Your task to perform on an android device: What's on my calendar today? Image 0: 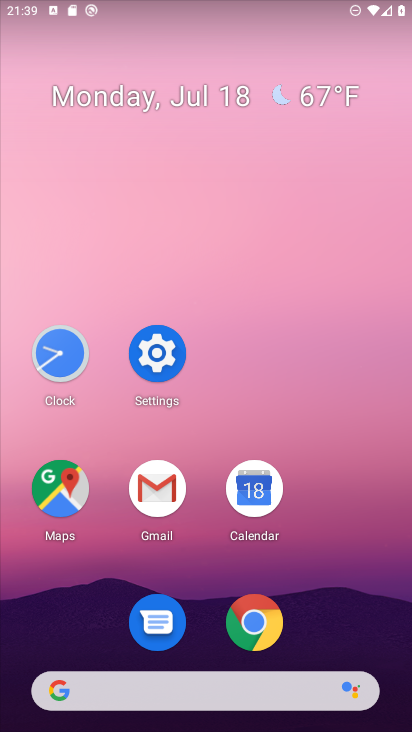
Step 0: click (242, 497)
Your task to perform on an android device: What's on my calendar today? Image 1: 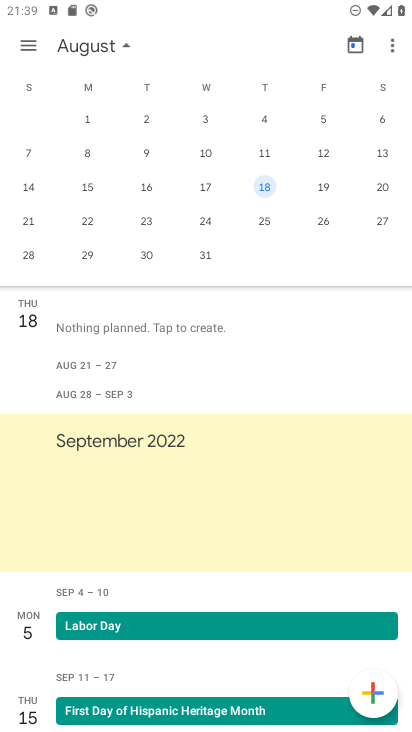
Step 1: drag from (58, 132) to (367, 143)
Your task to perform on an android device: What's on my calendar today? Image 2: 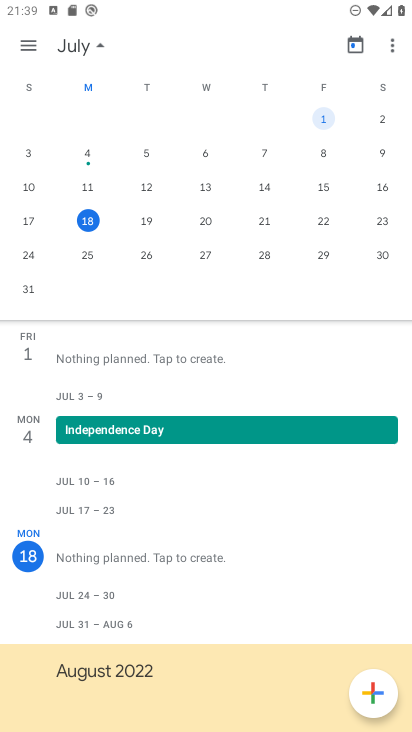
Step 2: click (87, 222)
Your task to perform on an android device: What's on my calendar today? Image 3: 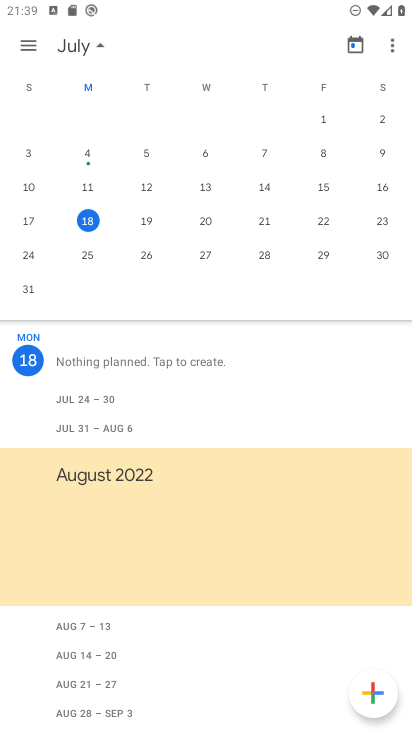
Step 3: task complete